Your task to perform on an android device: Open Google Maps and go to "Timeline" Image 0: 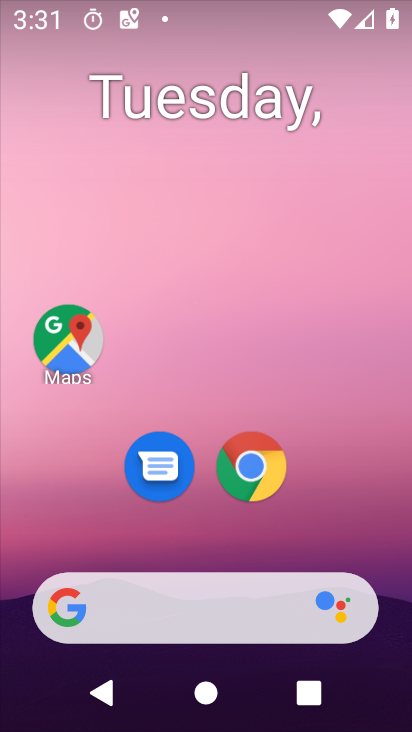
Step 0: drag from (361, 556) to (369, 253)
Your task to perform on an android device: Open Google Maps and go to "Timeline" Image 1: 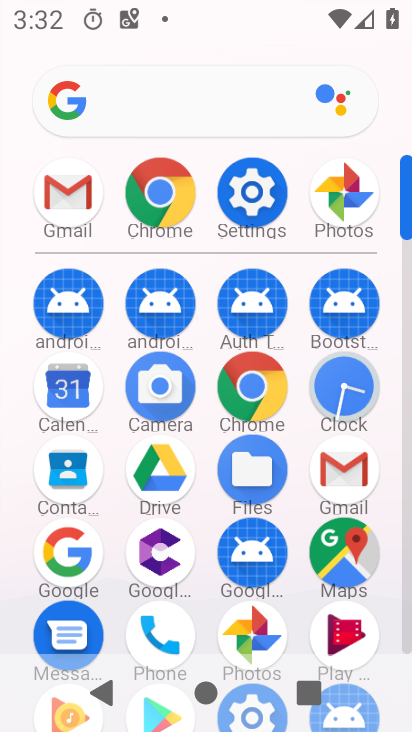
Step 1: click (363, 552)
Your task to perform on an android device: Open Google Maps and go to "Timeline" Image 2: 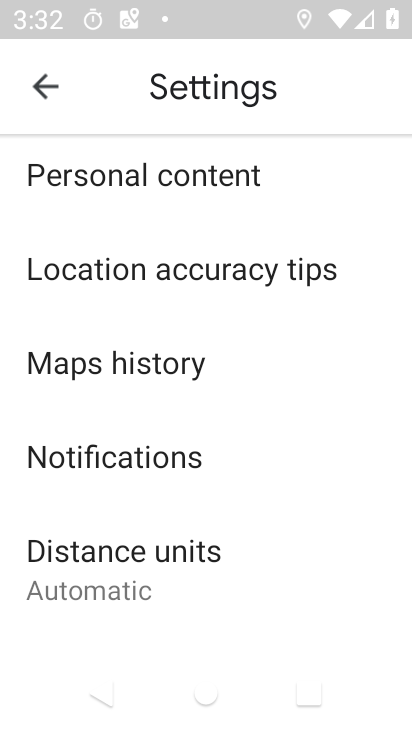
Step 2: press back button
Your task to perform on an android device: Open Google Maps and go to "Timeline" Image 3: 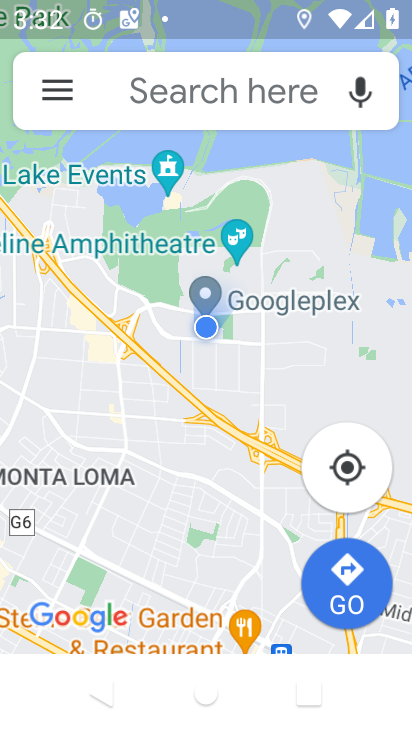
Step 3: click (59, 92)
Your task to perform on an android device: Open Google Maps and go to "Timeline" Image 4: 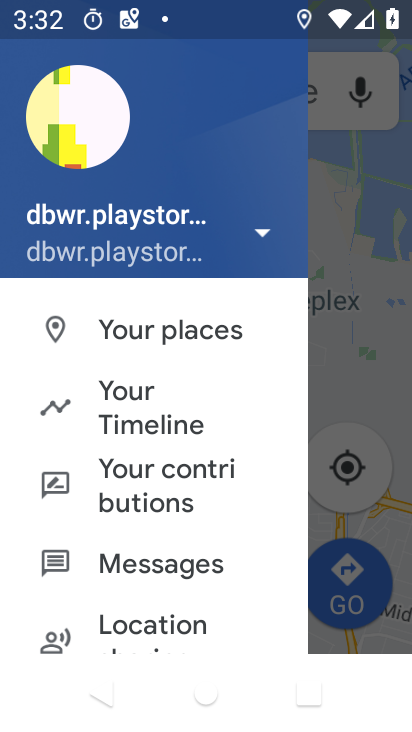
Step 4: click (162, 407)
Your task to perform on an android device: Open Google Maps and go to "Timeline" Image 5: 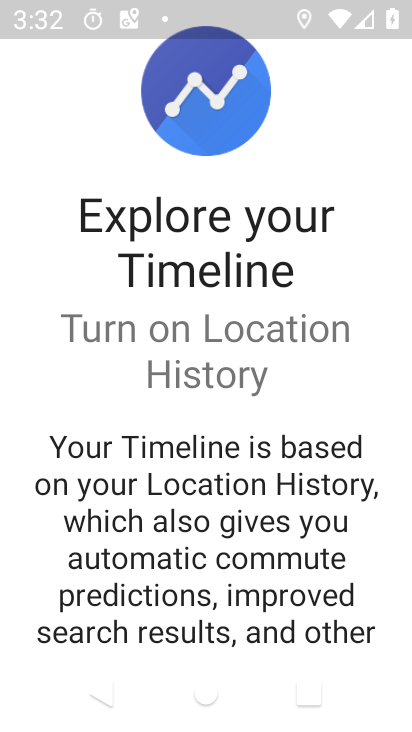
Step 5: task complete